Your task to perform on an android device: What is the news today? Image 0: 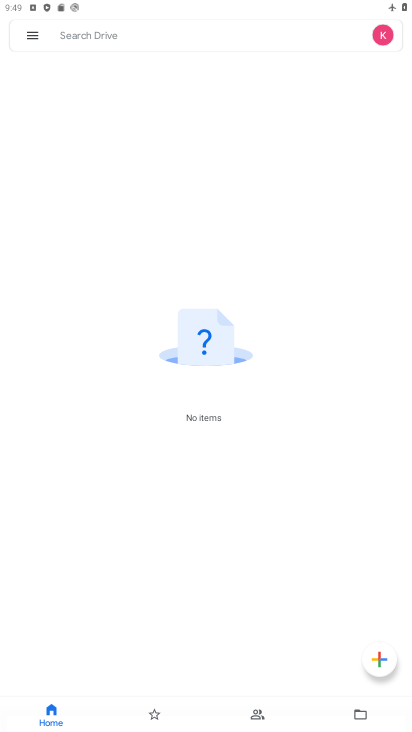
Step 0: press home button
Your task to perform on an android device: What is the news today? Image 1: 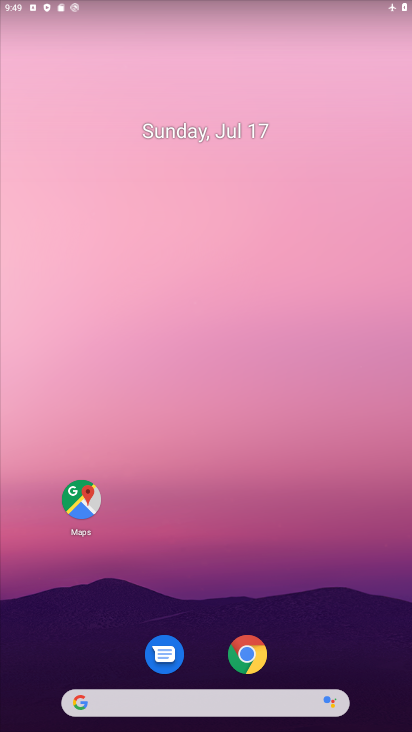
Step 1: drag from (207, 634) to (207, 208)
Your task to perform on an android device: What is the news today? Image 2: 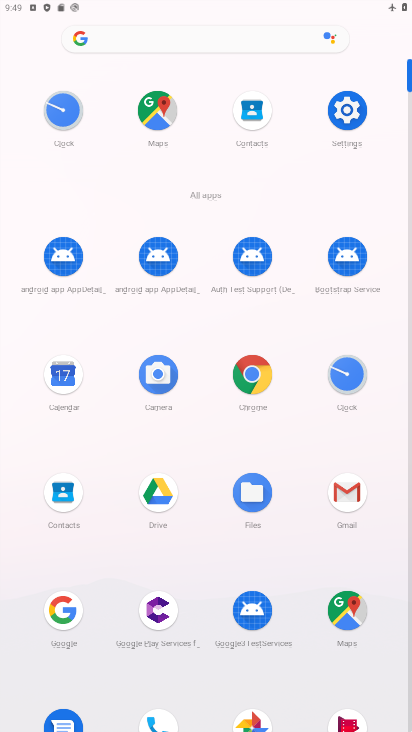
Step 2: click (67, 612)
Your task to perform on an android device: What is the news today? Image 3: 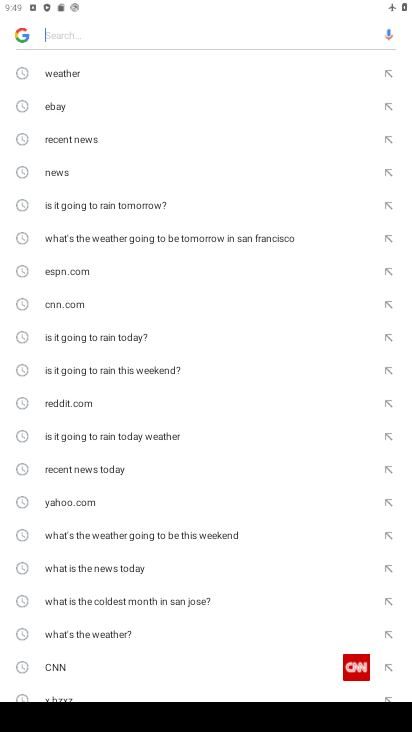
Step 3: click (68, 169)
Your task to perform on an android device: What is the news today? Image 4: 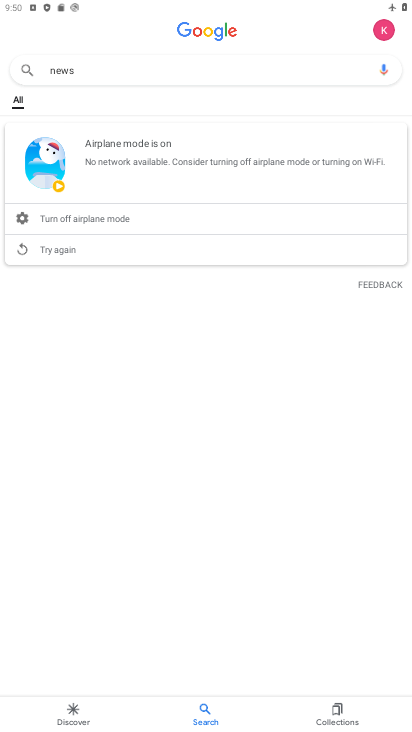
Step 4: task complete